Your task to perform on an android device: Open ESPN.com Image 0: 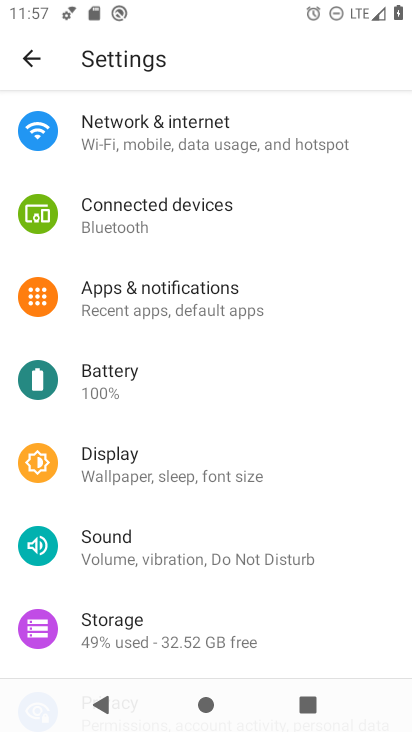
Step 0: press home button
Your task to perform on an android device: Open ESPN.com Image 1: 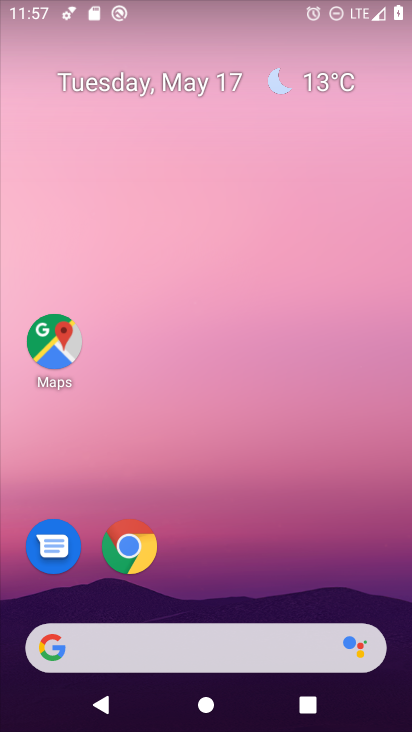
Step 1: click (122, 569)
Your task to perform on an android device: Open ESPN.com Image 2: 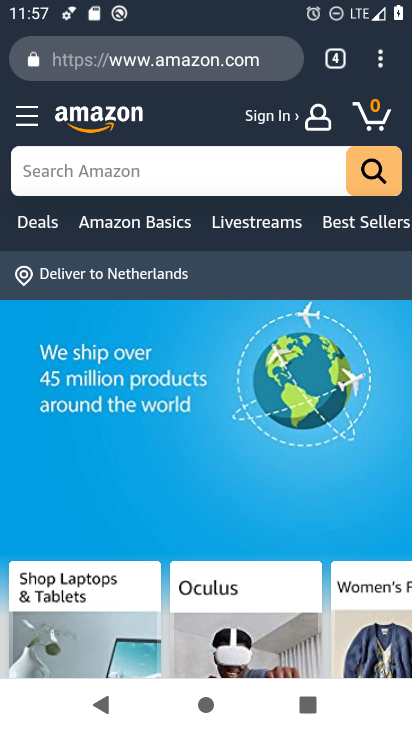
Step 2: click (120, 64)
Your task to perform on an android device: Open ESPN.com Image 3: 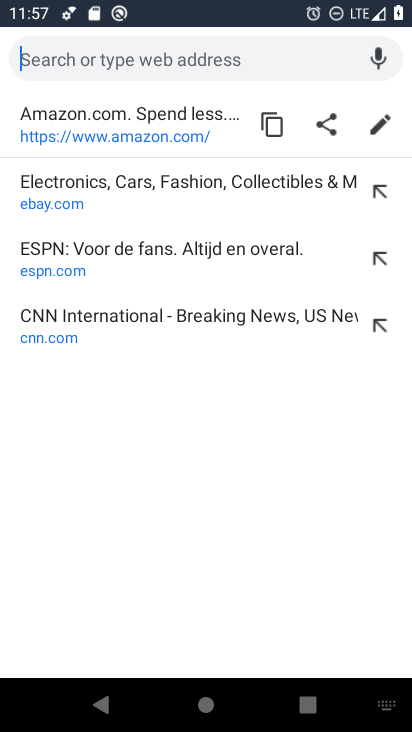
Step 3: click (67, 253)
Your task to perform on an android device: Open ESPN.com Image 4: 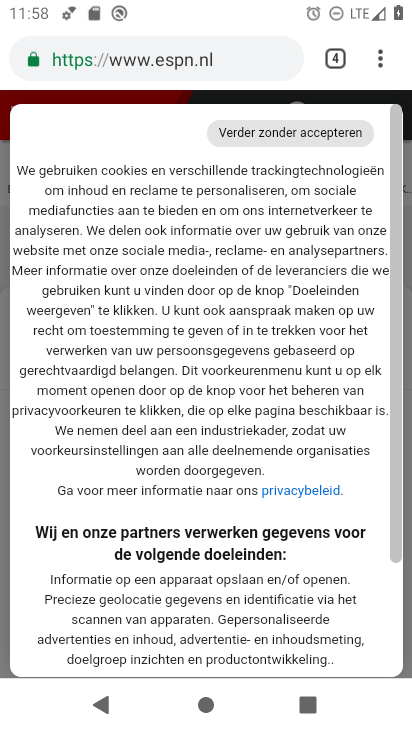
Step 4: task complete